Your task to perform on an android device: check out phone information Image 0: 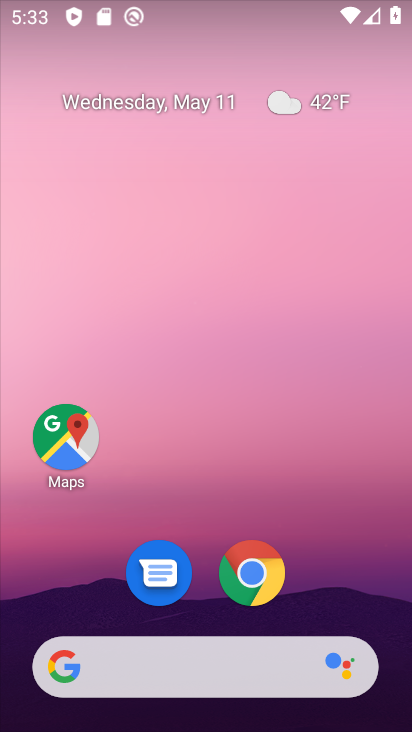
Step 0: drag from (300, 460) to (186, 195)
Your task to perform on an android device: check out phone information Image 1: 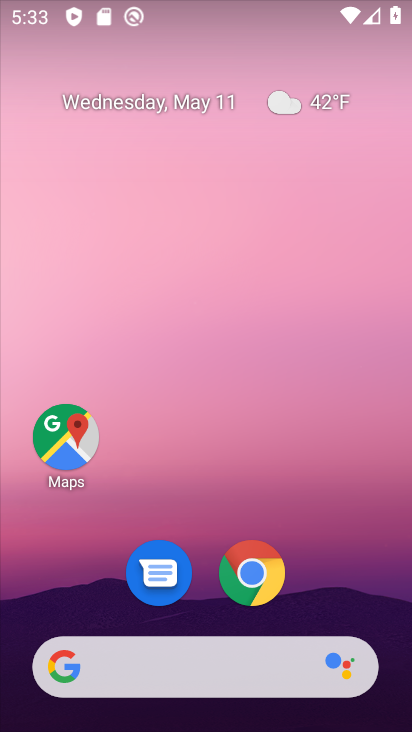
Step 1: drag from (314, 584) to (272, 242)
Your task to perform on an android device: check out phone information Image 2: 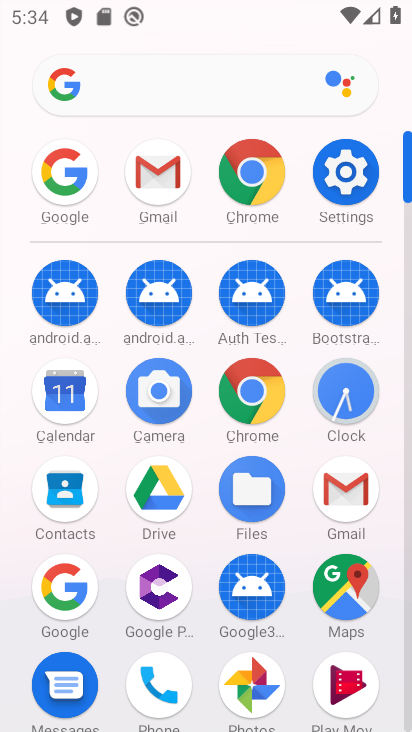
Step 2: drag from (301, 617) to (318, 301)
Your task to perform on an android device: check out phone information Image 3: 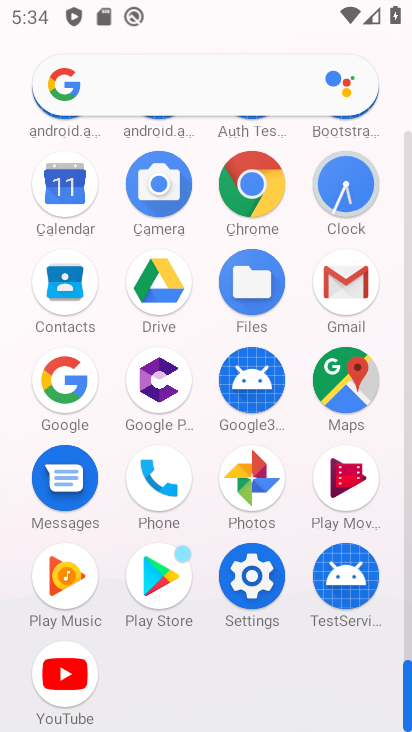
Step 3: drag from (301, 262) to (301, 654)
Your task to perform on an android device: check out phone information Image 4: 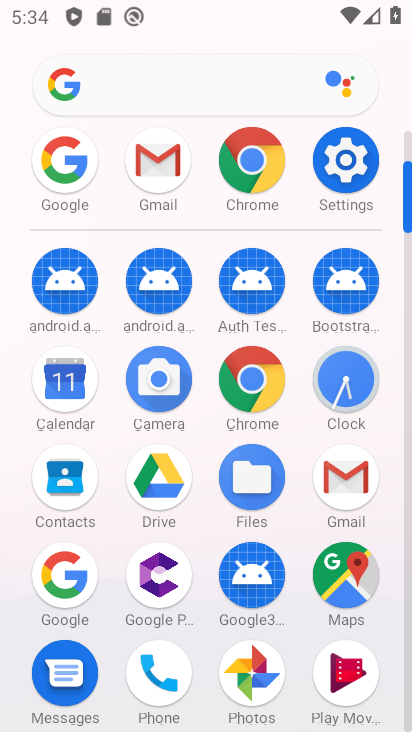
Step 4: click (351, 199)
Your task to perform on an android device: check out phone information Image 5: 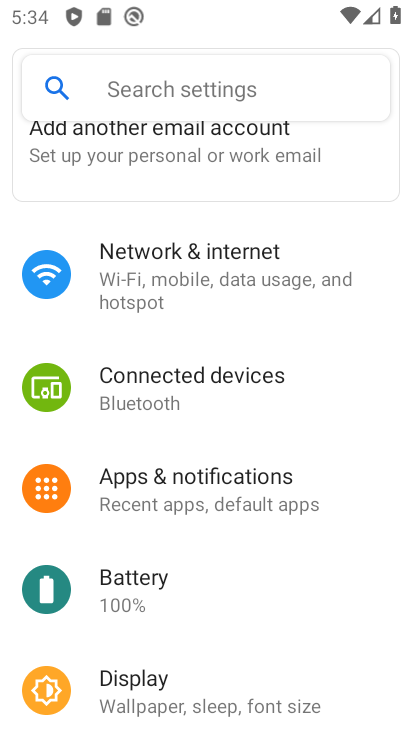
Step 5: drag from (171, 629) to (173, 234)
Your task to perform on an android device: check out phone information Image 6: 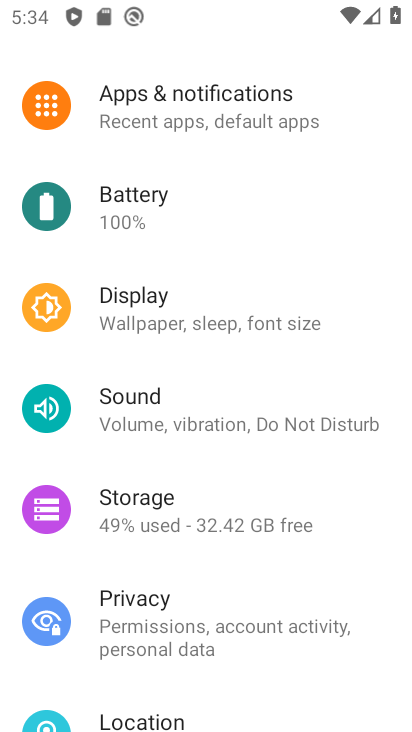
Step 6: drag from (185, 679) to (199, 260)
Your task to perform on an android device: check out phone information Image 7: 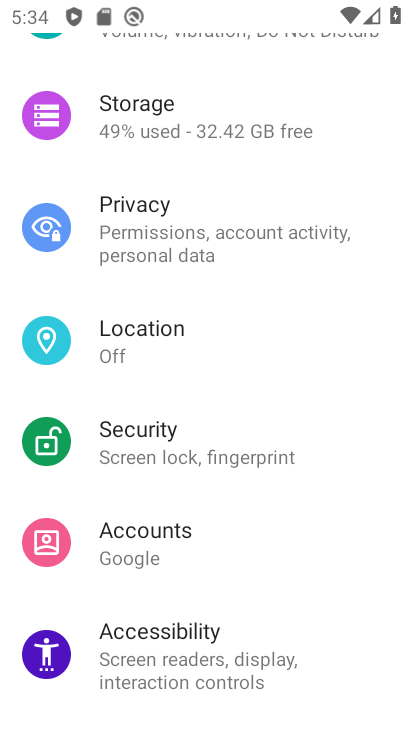
Step 7: drag from (168, 642) to (238, 318)
Your task to perform on an android device: check out phone information Image 8: 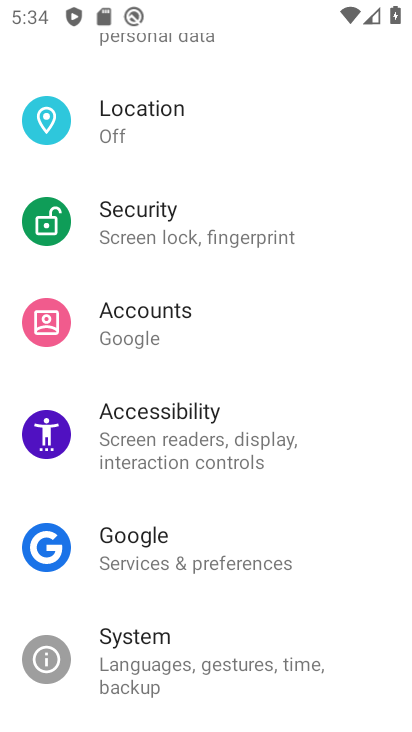
Step 8: drag from (141, 691) to (199, 367)
Your task to perform on an android device: check out phone information Image 9: 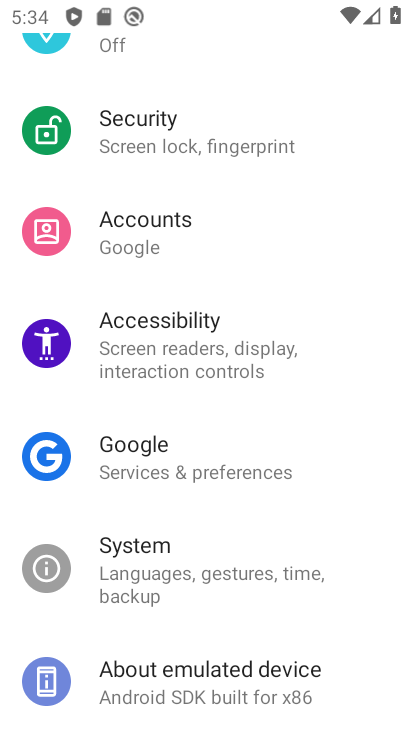
Step 9: click (138, 693)
Your task to perform on an android device: check out phone information Image 10: 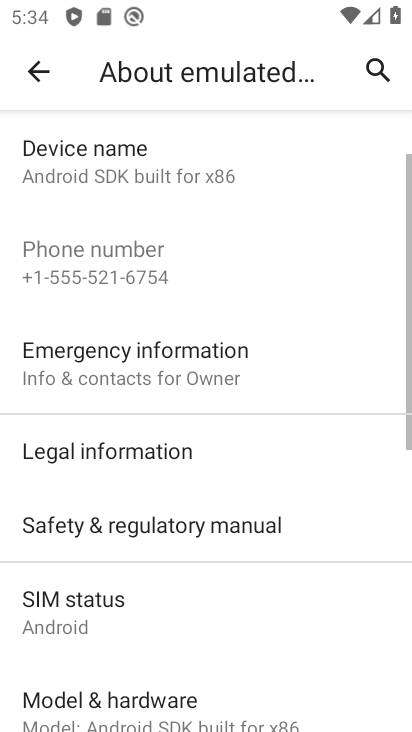
Step 10: task complete